Your task to perform on an android device: set an alarm Image 0: 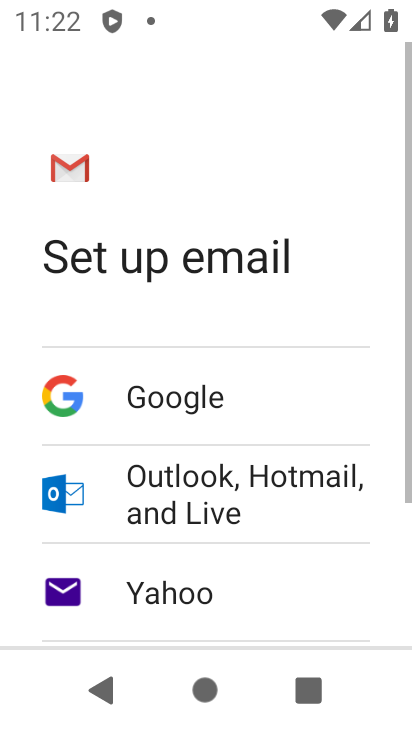
Step 0: drag from (364, 430) to (331, 82)
Your task to perform on an android device: set an alarm Image 1: 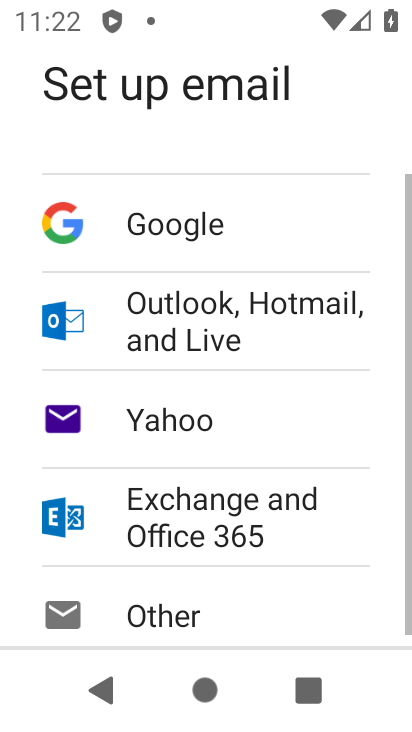
Step 1: press home button
Your task to perform on an android device: set an alarm Image 2: 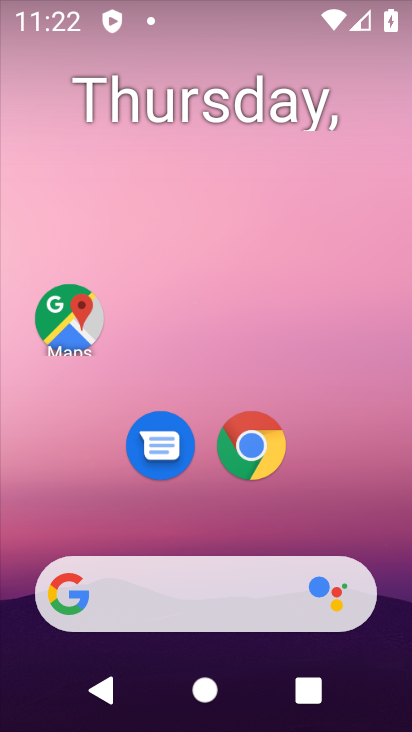
Step 2: drag from (332, 502) to (300, 20)
Your task to perform on an android device: set an alarm Image 3: 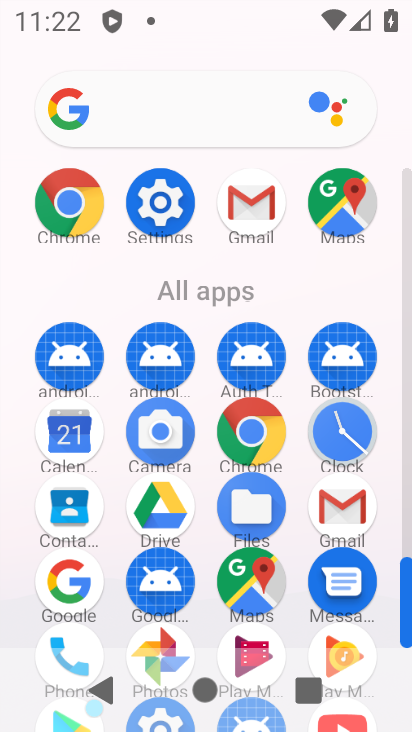
Step 3: click (354, 454)
Your task to perform on an android device: set an alarm Image 4: 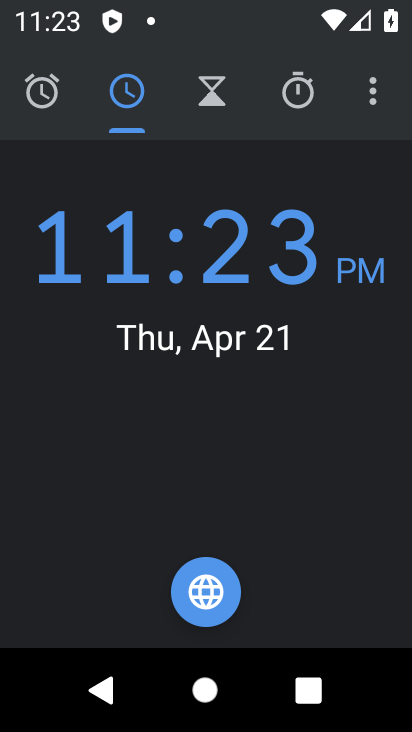
Step 4: click (50, 119)
Your task to perform on an android device: set an alarm Image 5: 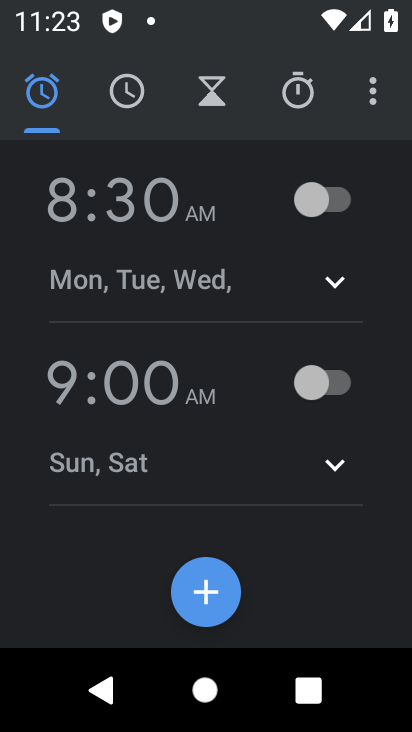
Step 5: click (328, 203)
Your task to perform on an android device: set an alarm Image 6: 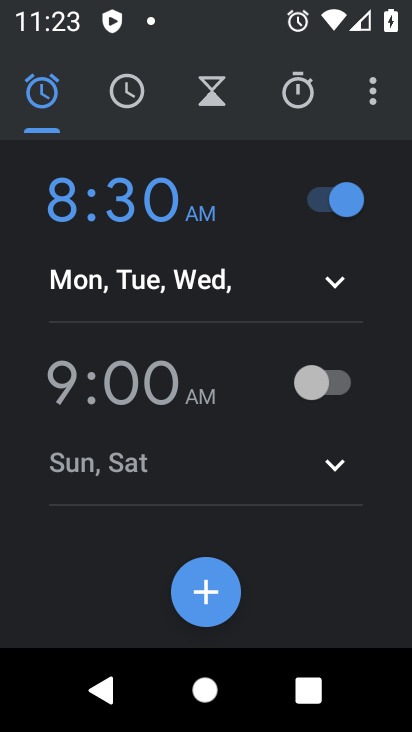
Step 6: task complete